Your task to perform on an android device: turn off location Image 0: 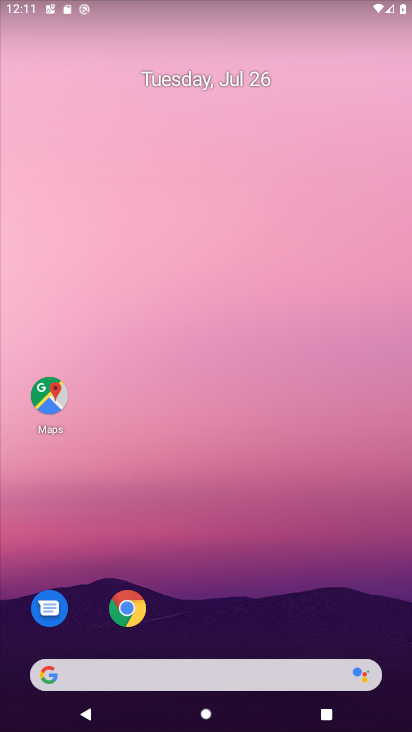
Step 0: drag from (220, 633) to (240, 9)
Your task to perform on an android device: turn off location Image 1: 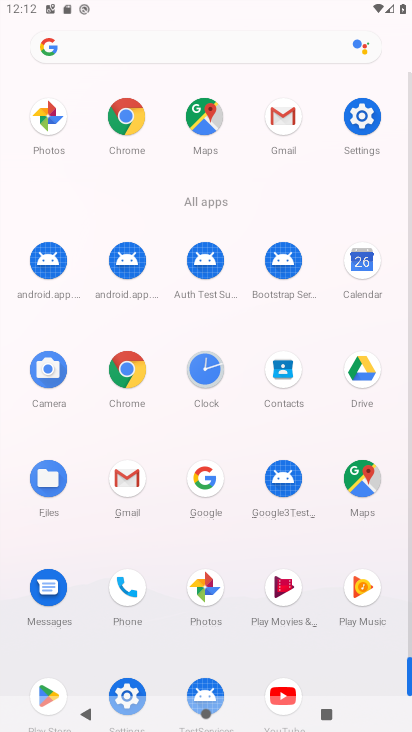
Step 1: click (359, 127)
Your task to perform on an android device: turn off location Image 2: 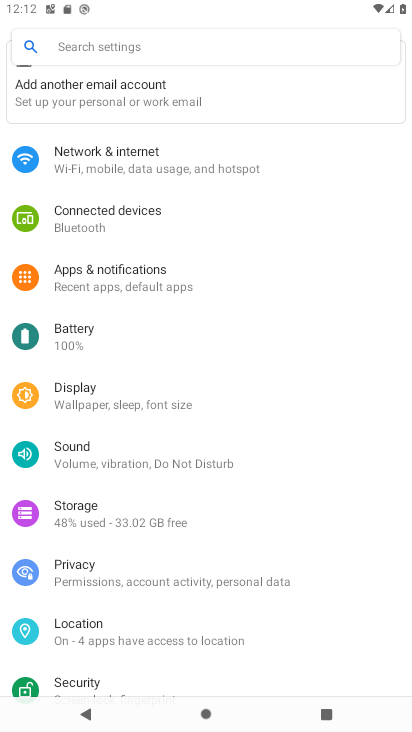
Step 2: click (103, 636)
Your task to perform on an android device: turn off location Image 3: 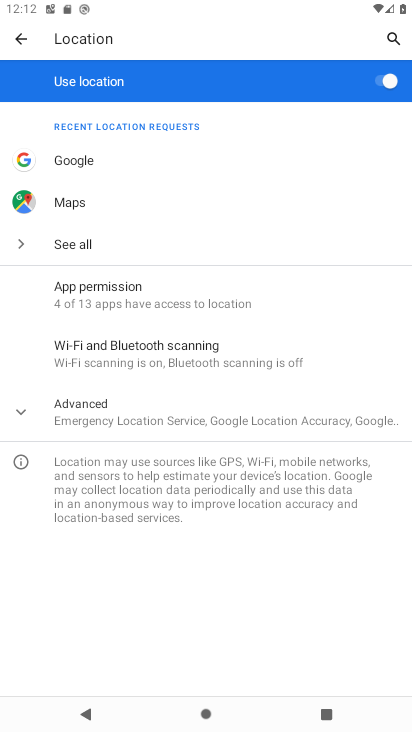
Step 3: click (367, 80)
Your task to perform on an android device: turn off location Image 4: 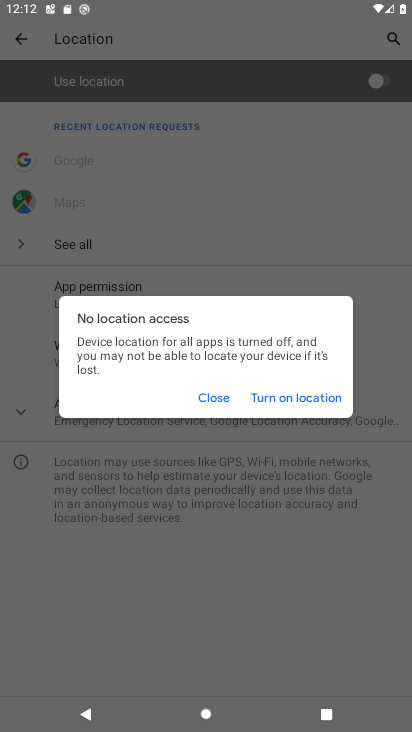
Step 4: click (357, 76)
Your task to perform on an android device: turn off location Image 5: 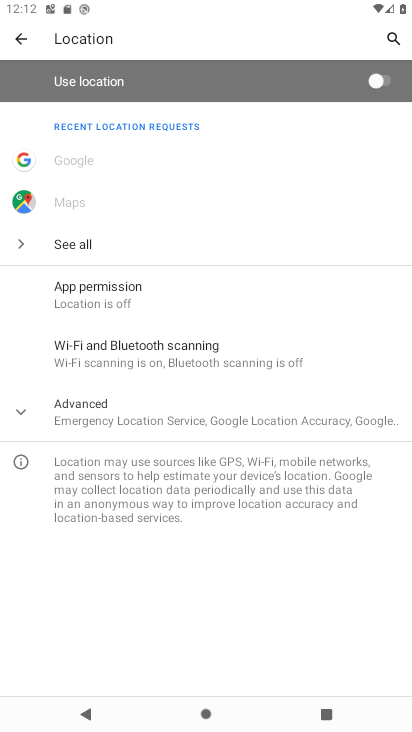
Step 5: task complete